Your task to perform on an android device: Open location settings Image 0: 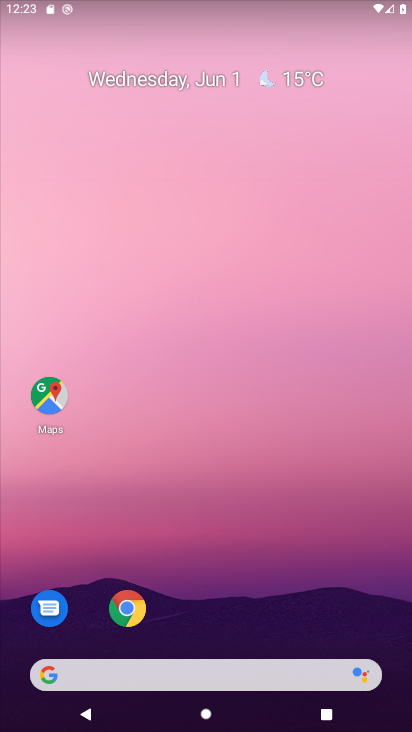
Step 0: drag from (205, 583) to (276, 45)
Your task to perform on an android device: Open location settings Image 1: 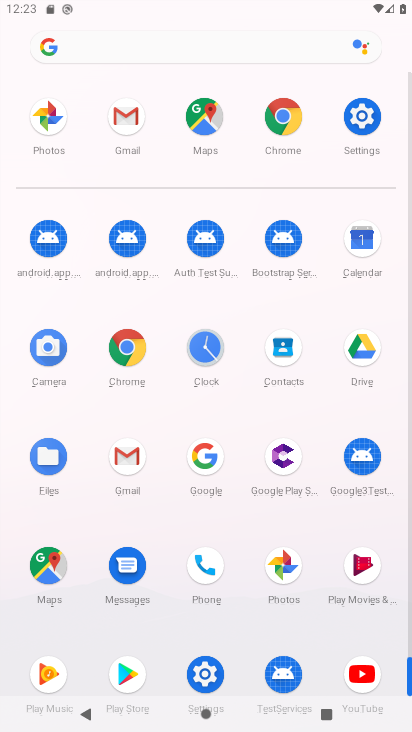
Step 1: click (371, 132)
Your task to perform on an android device: Open location settings Image 2: 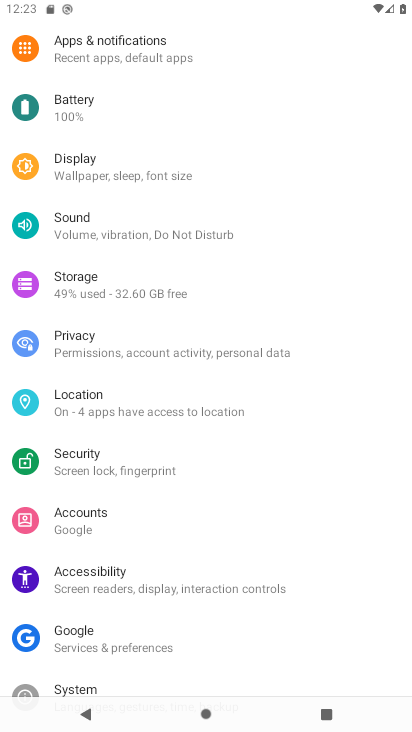
Step 2: click (135, 417)
Your task to perform on an android device: Open location settings Image 3: 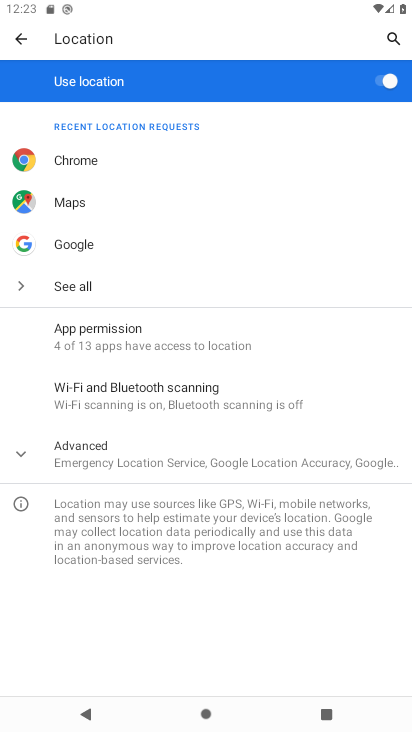
Step 3: task complete